Your task to perform on an android device: change alarm snooze length Image 0: 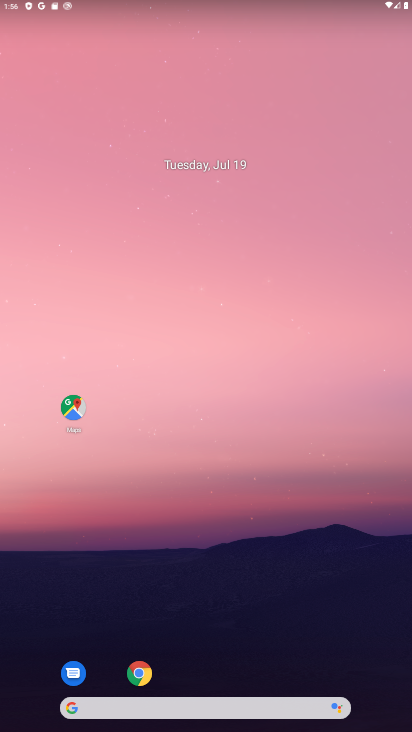
Step 0: drag from (266, 681) to (234, 108)
Your task to perform on an android device: change alarm snooze length Image 1: 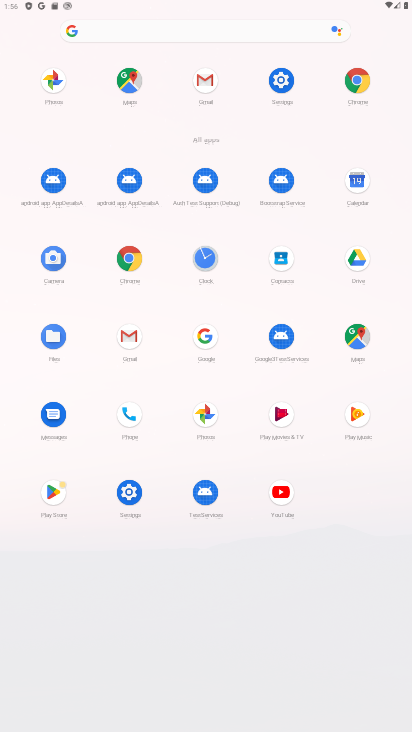
Step 1: click (200, 267)
Your task to perform on an android device: change alarm snooze length Image 2: 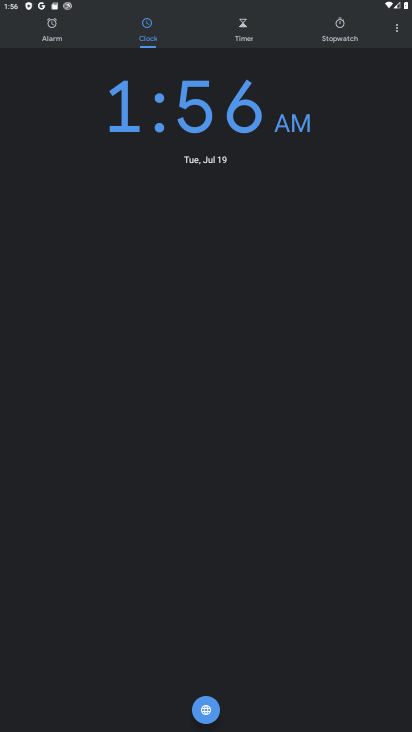
Step 2: click (403, 32)
Your task to perform on an android device: change alarm snooze length Image 3: 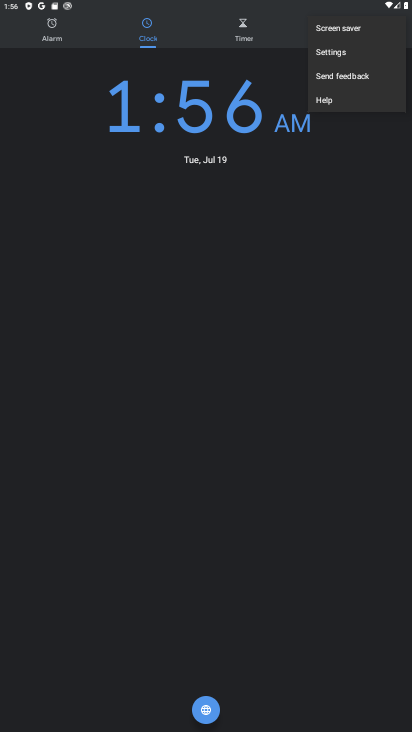
Step 3: click (343, 53)
Your task to perform on an android device: change alarm snooze length Image 4: 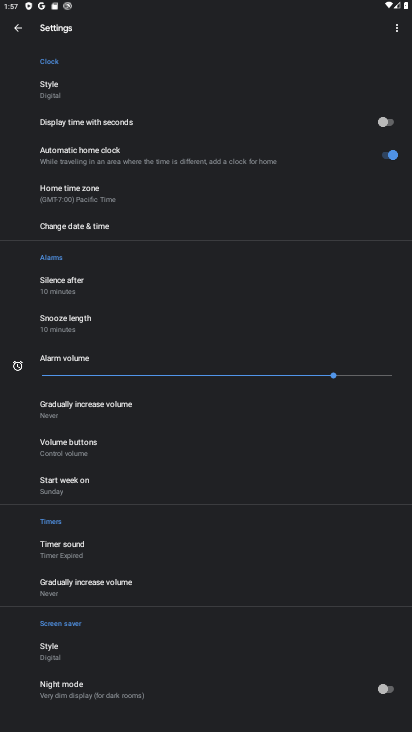
Step 4: click (100, 317)
Your task to perform on an android device: change alarm snooze length Image 5: 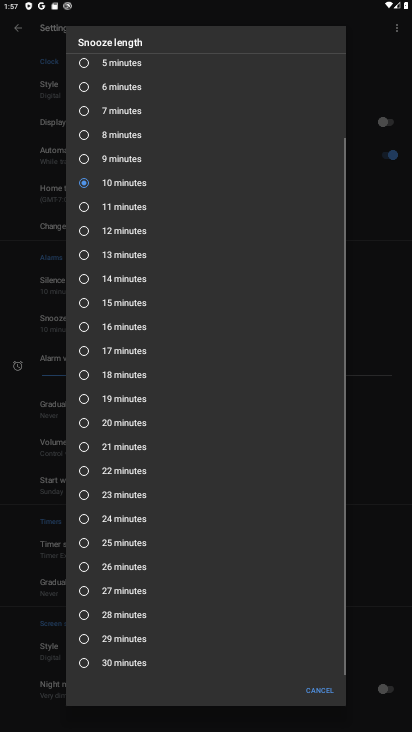
Step 5: click (104, 321)
Your task to perform on an android device: change alarm snooze length Image 6: 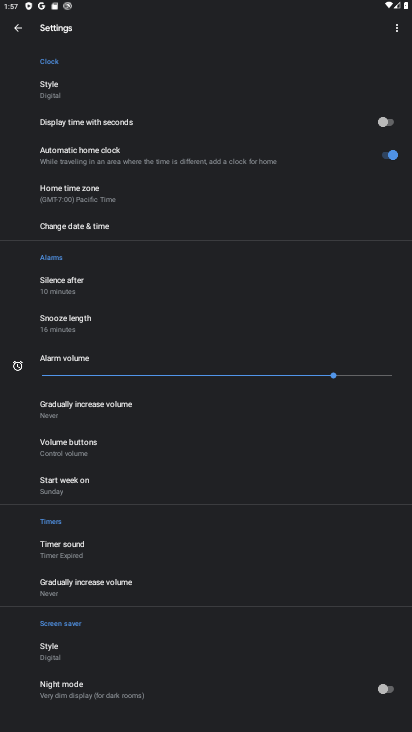
Step 6: task complete